Your task to perform on an android device: check google app version Image 0: 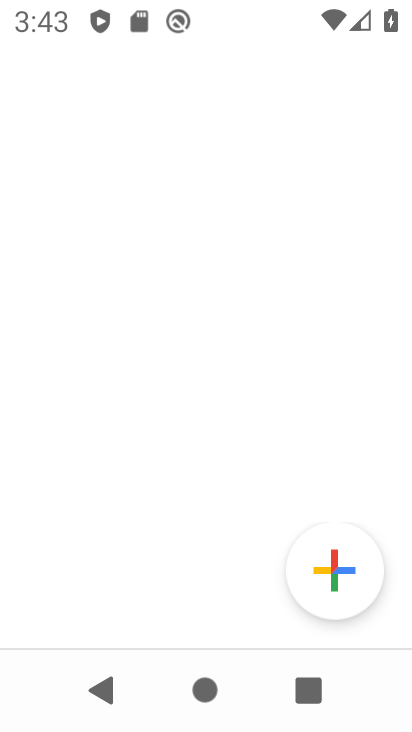
Step 0: drag from (5, 525) to (401, 270)
Your task to perform on an android device: check google app version Image 1: 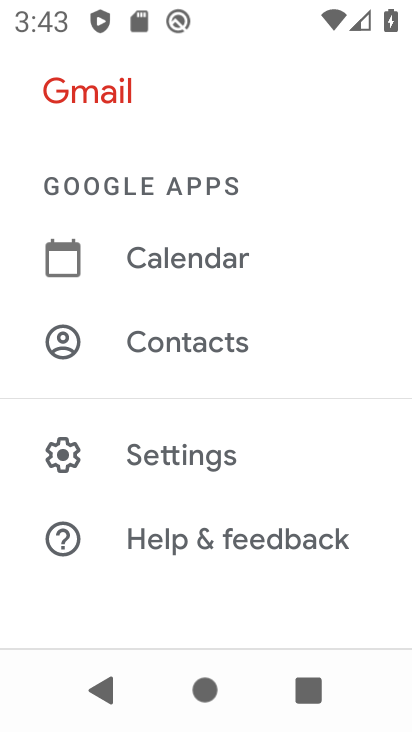
Step 1: press home button
Your task to perform on an android device: check google app version Image 2: 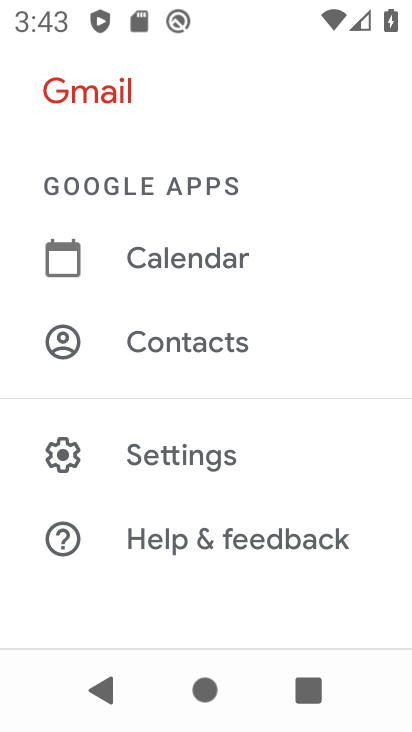
Step 2: click (374, 244)
Your task to perform on an android device: check google app version Image 3: 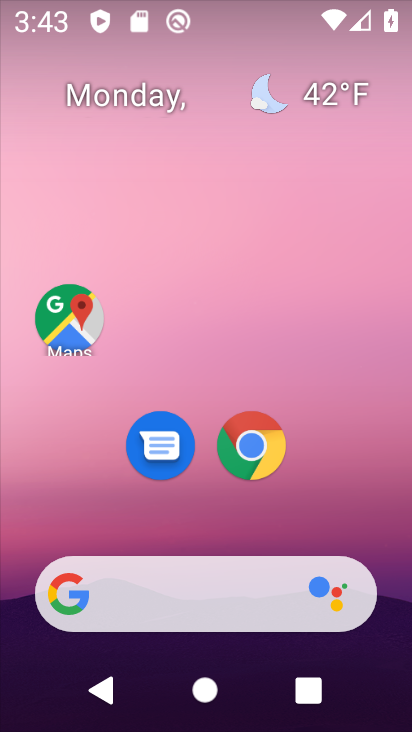
Step 3: drag from (4, 513) to (239, 71)
Your task to perform on an android device: check google app version Image 4: 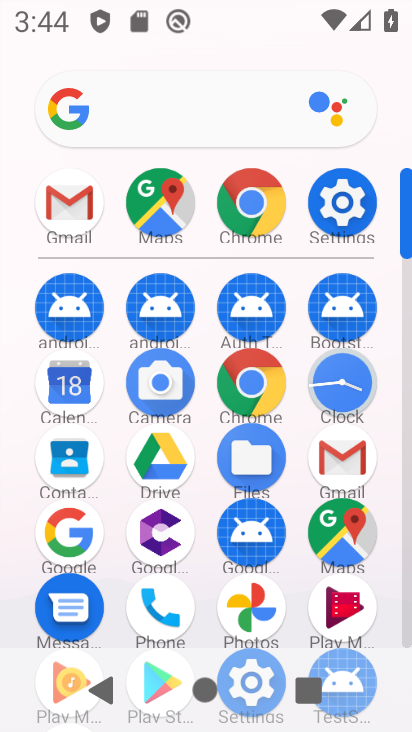
Step 4: click (60, 525)
Your task to perform on an android device: check google app version Image 5: 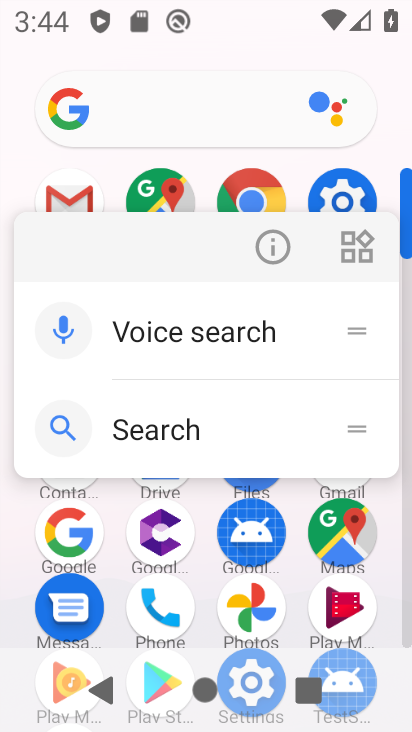
Step 5: click (277, 244)
Your task to perform on an android device: check google app version Image 6: 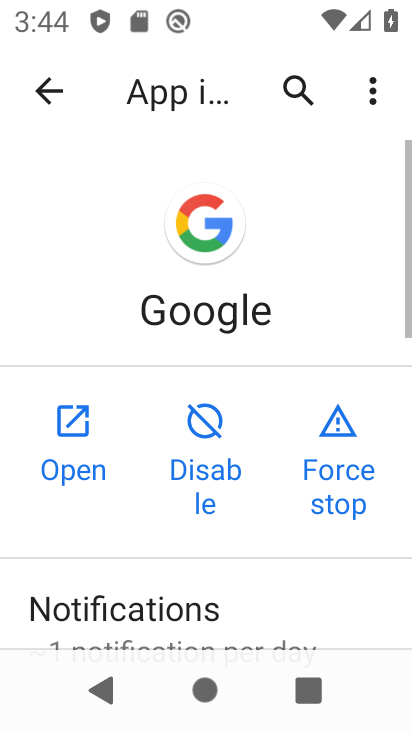
Step 6: drag from (112, 606) to (193, 87)
Your task to perform on an android device: check google app version Image 7: 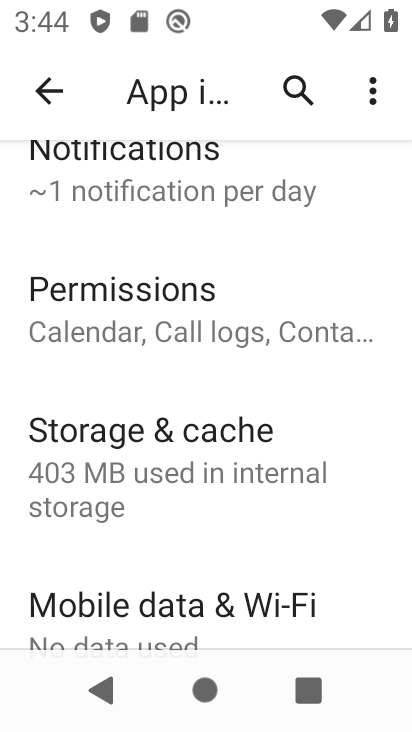
Step 7: drag from (134, 598) to (200, 139)
Your task to perform on an android device: check google app version Image 8: 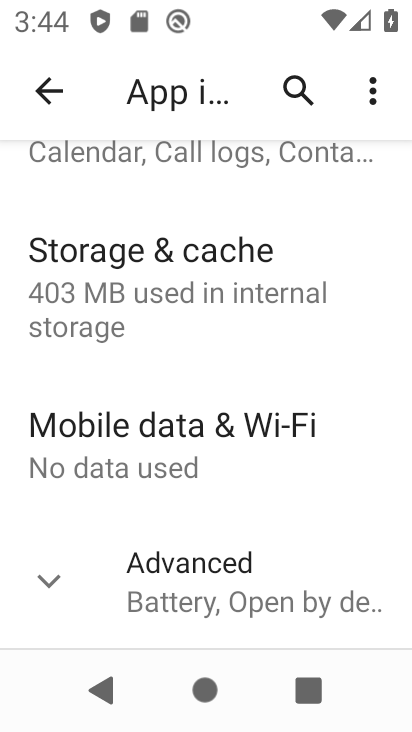
Step 8: click (52, 583)
Your task to perform on an android device: check google app version Image 9: 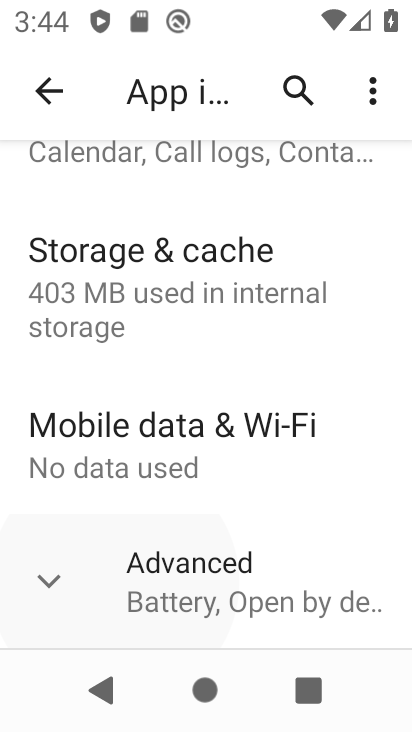
Step 9: task complete